Your task to perform on an android device: turn on improve location accuracy Image 0: 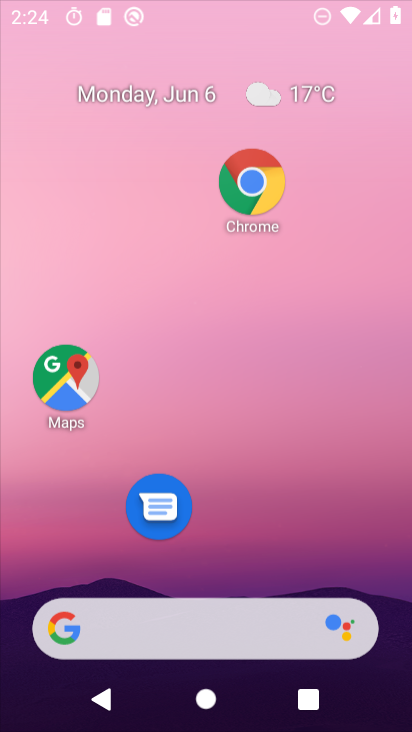
Step 0: click (255, 239)
Your task to perform on an android device: turn on improve location accuracy Image 1: 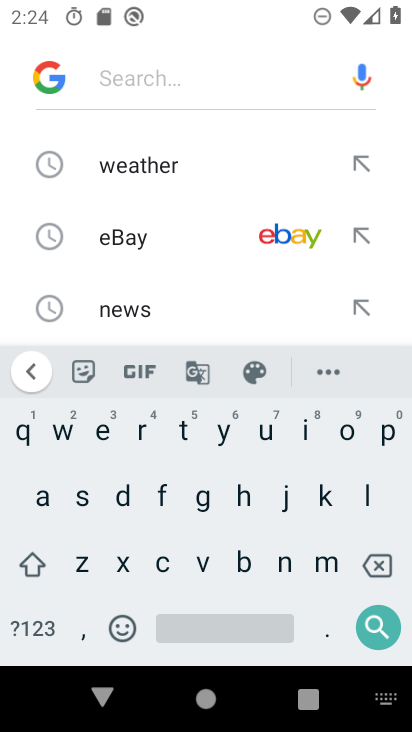
Step 1: press back button
Your task to perform on an android device: turn on improve location accuracy Image 2: 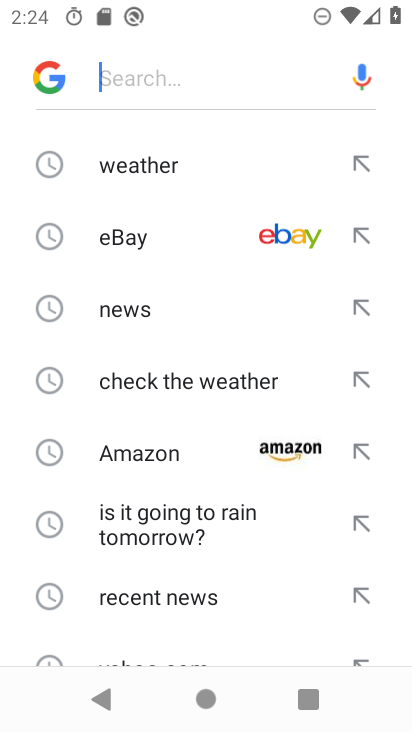
Step 2: press back button
Your task to perform on an android device: turn on improve location accuracy Image 3: 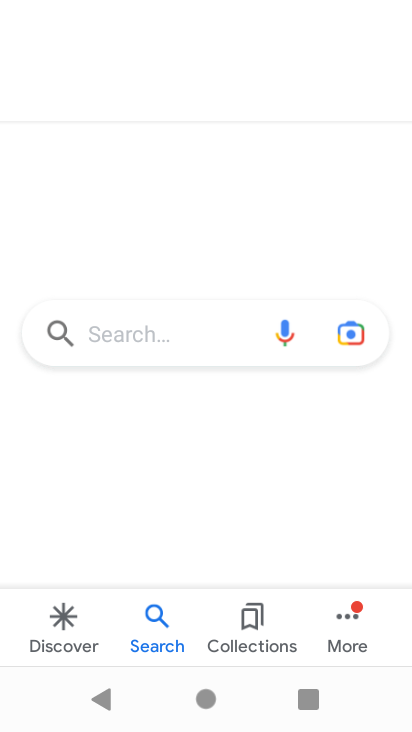
Step 3: press back button
Your task to perform on an android device: turn on improve location accuracy Image 4: 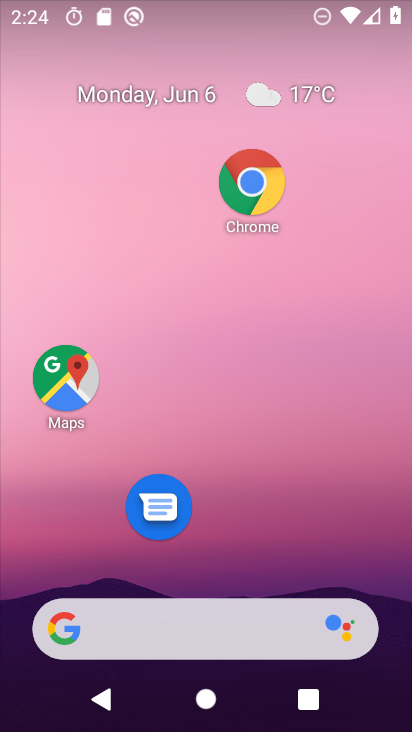
Step 4: drag from (251, 608) to (188, 159)
Your task to perform on an android device: turn on improve location accuracy Image 5: 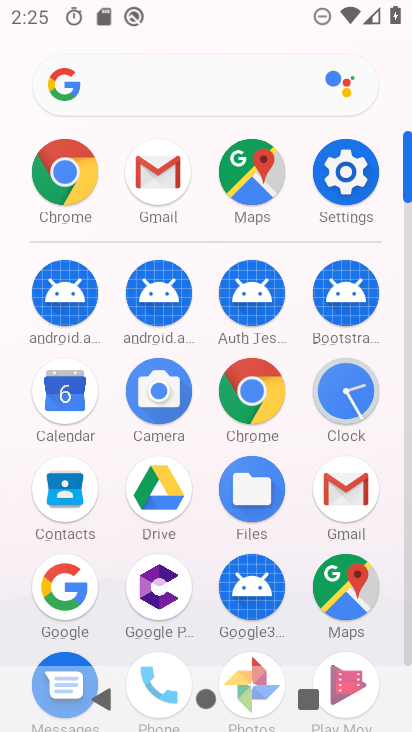
Step 5: click (334, 179)
Your task to perform on an android device: turn on improve location accuracy Image 6: 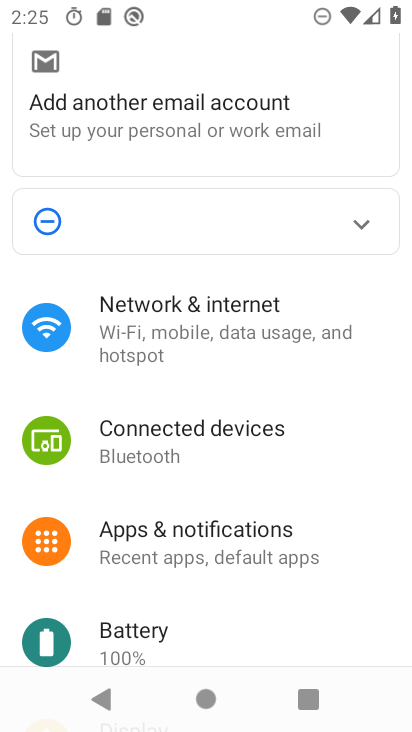
Step 6: drag from (145, 139) to (177, 279)
Your task to perform on an android device: turn on improve location accuracy Image 7: 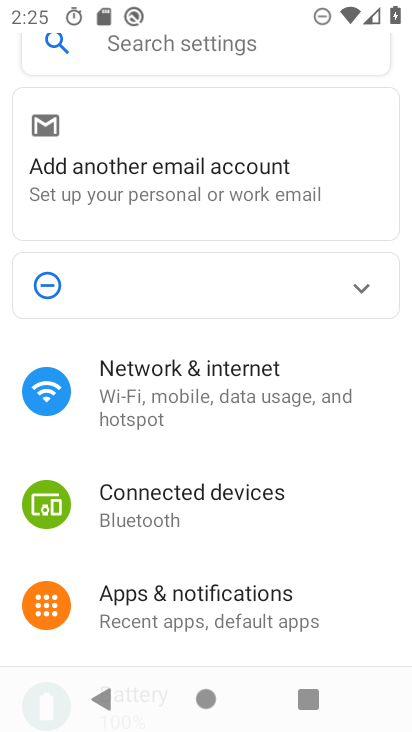
Step 7: click (151, 51)
Your task to perform on an android device: turn on improve location accuracy Image 8: 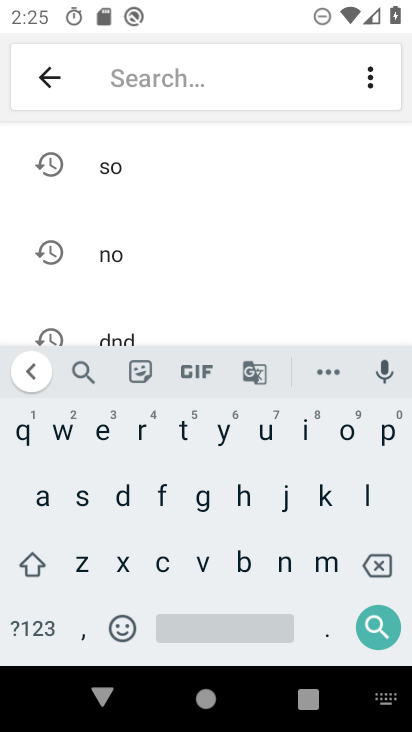
Step 8: click (375, 497)
Your task to perform on an android device: turn on improve location accuracy Image 9: 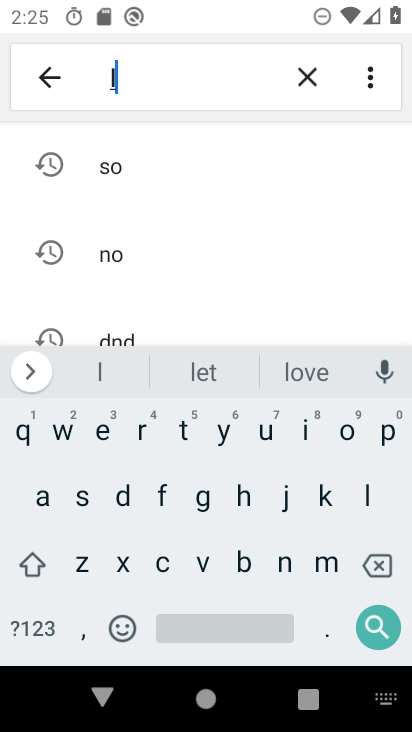
Step 9: click (344, 430)
Your task to perform on an android device: turn on improve location accuracy Image 10: 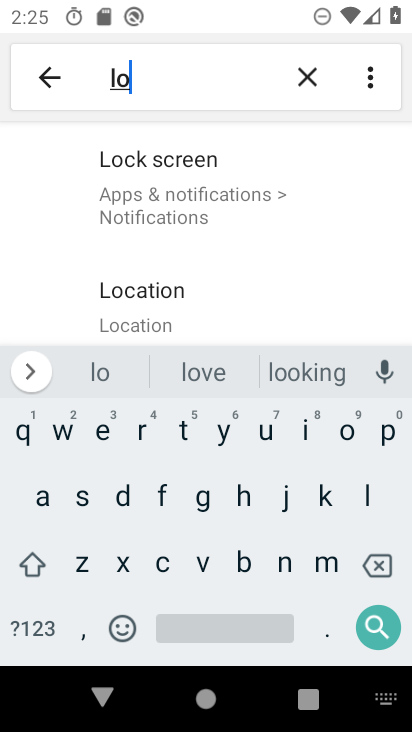
Step 10: click (141, 293)
Your task to perform on an android device: turn on improve location accuracy Image 11: 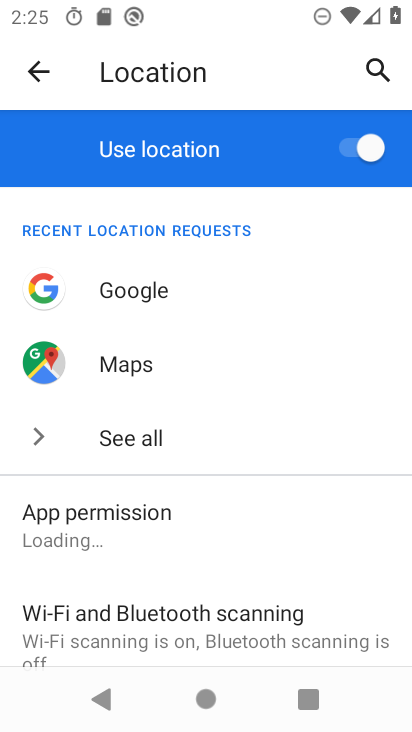
Step 11: drag from (153, 541) to (156, 260)
Your task to perform on an android device: turn on improve location accuracy Image 12: 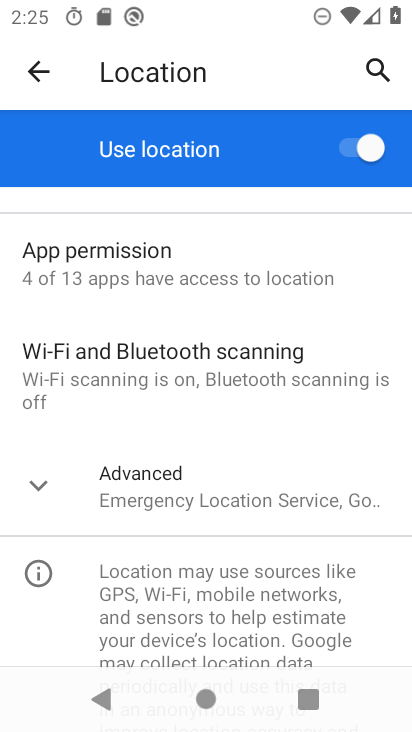
Step 12: click (89, 506)
Your task to perform on an android device: turn on improve location accuracy Image 13: 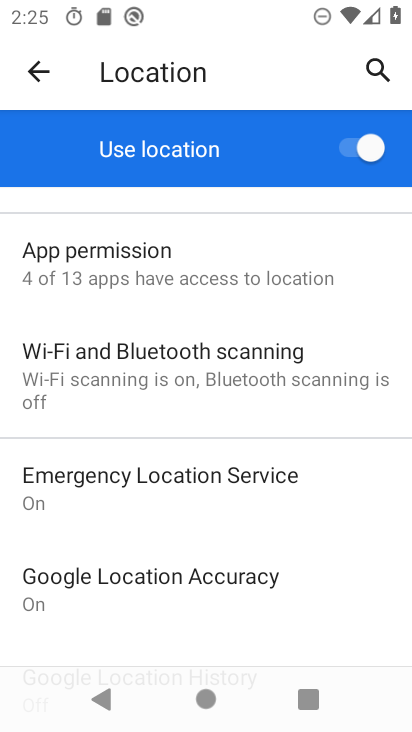
Step 13: click (185, 563)
Your task to perform on an android device: turn on improve location accuracy Image 14: 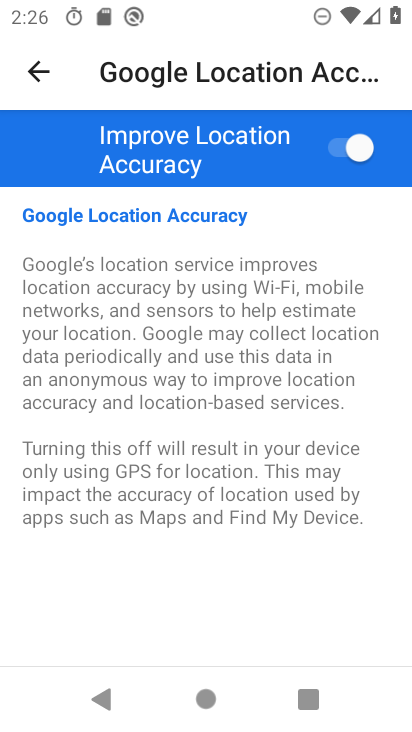
Step 14: task complete